Your task to perform on an android device: turn off smart reply in the gmail app Image 0: 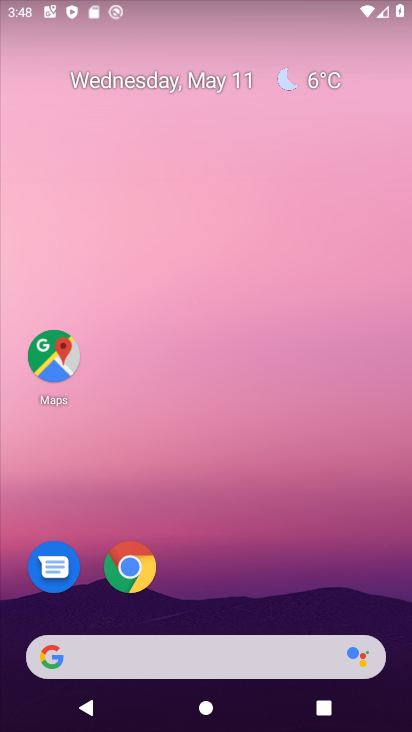
Step 0: click (315, 184)
Your task to perform on an android device: turn off smart reply in the gmail app Image 1: 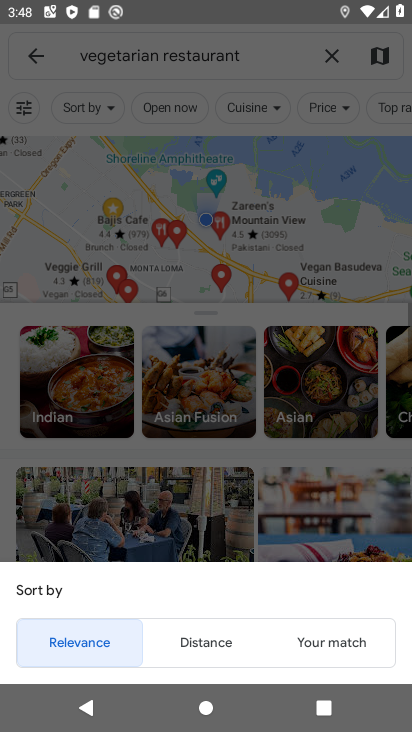
Step 1: press home button
Your task to perform on an android device: turn off smart reply in the gmail app Image 2: 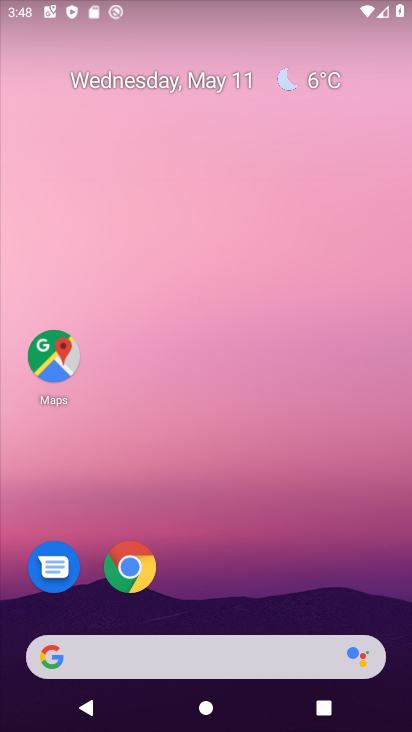
Step 2: drag from (215, 579) to (203, 223)
Your task to perform on an android device: turn off smart reply in the gmail app Image 3: 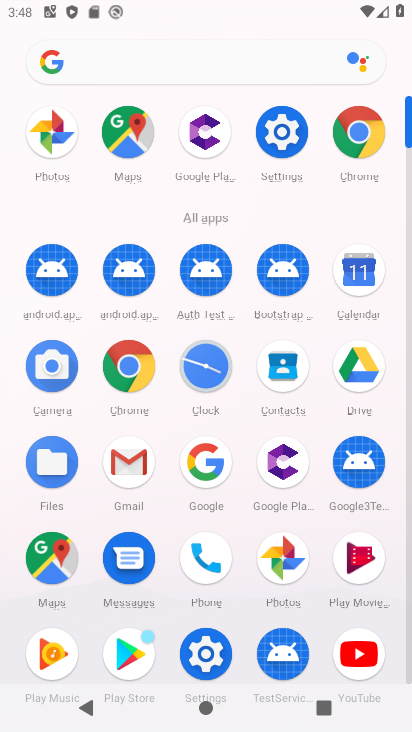
Step 3: click (133, 455)
Your task to perform on an android device: turn off smart reply in the gmail app Image 4: 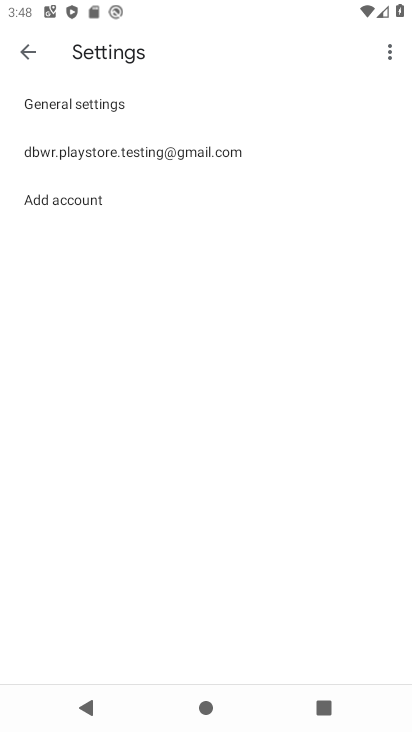
Step 4: click (106, 148)
Your task to perform on an android device: turn off smart reply in the gmail app Image 5: 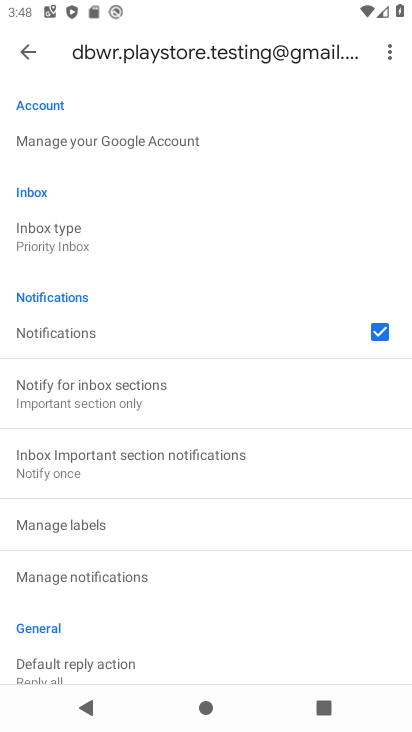
Step 5: drag from (160, 590) to (203, 256)
Your task to perform on an android device: turn off smart reply in the gmail app Image 6: 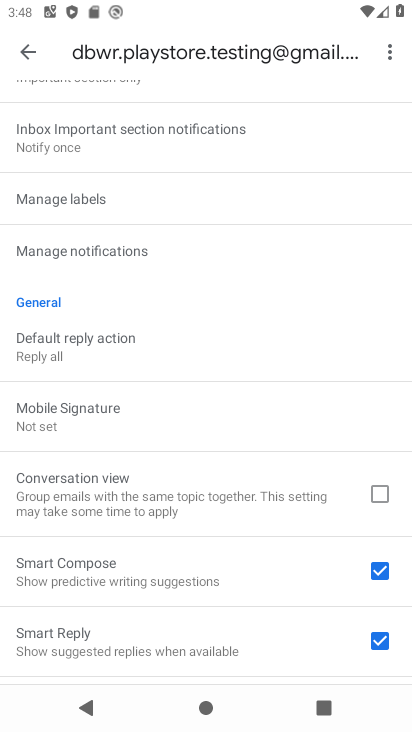
Step 6: click (382, 637)
Your task to perform on an android device: turn off smart reply in the gmail app Image 7: 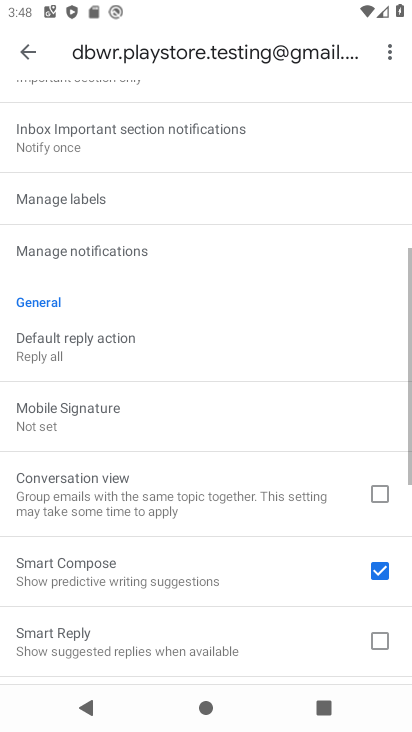
Step 7: task complete